Your task to perform on an android device: Go to Amazon Image 0: 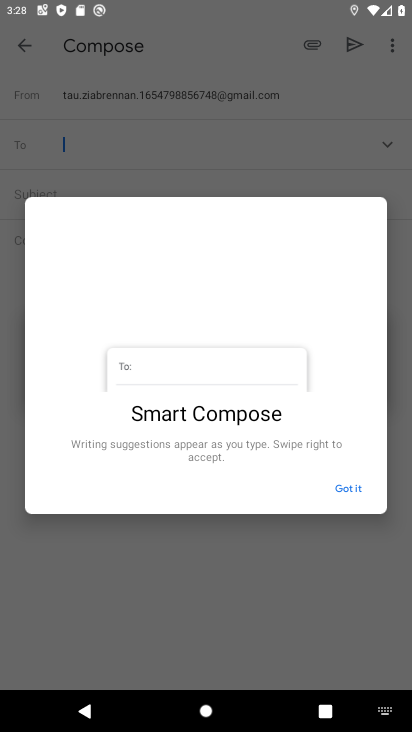
Step 0: press home button
Your task to perform on an android device: Go to Amazon Image 1: 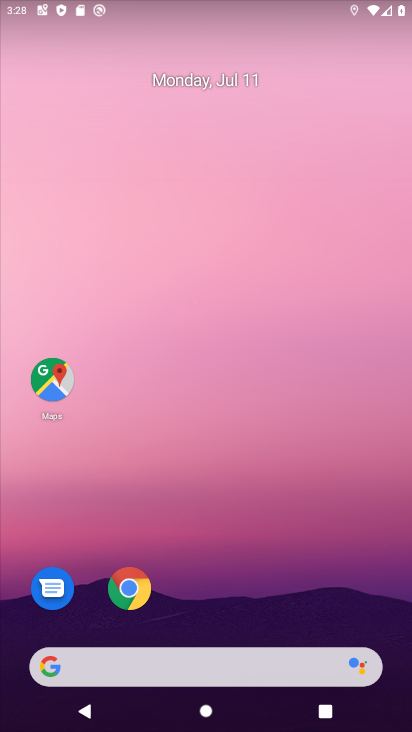
Step 1: click (136, 585)
Your task to perform on an android device: Go to Amazon Image 2: 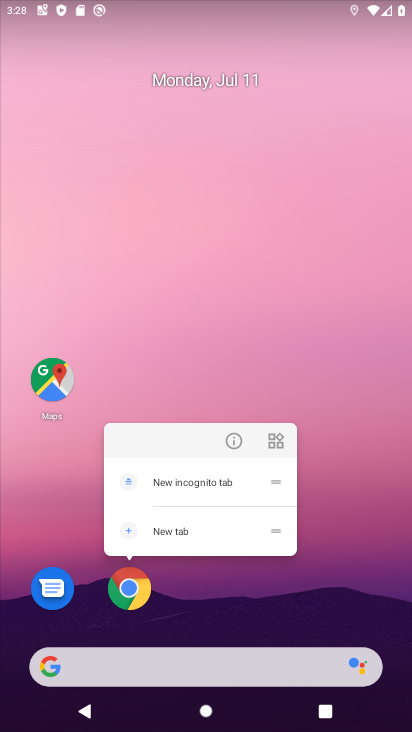
Step 2: click (135, 585)
Your task to perform on an android device: Go to Amazon Image 3: 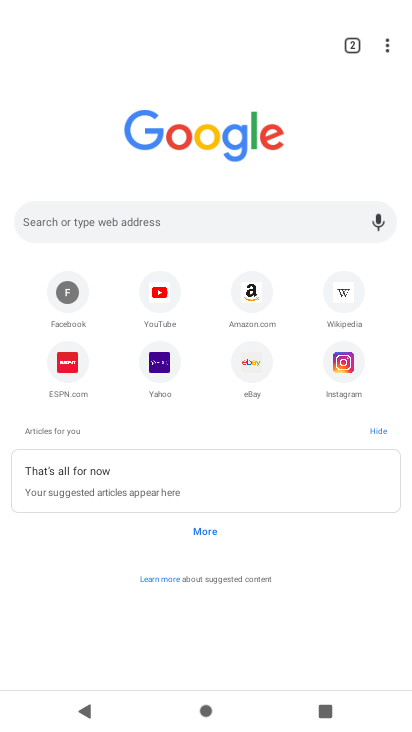
Step 3: click (258, 288)
Your task to perform on an android device: Go to Amazon Image 4: 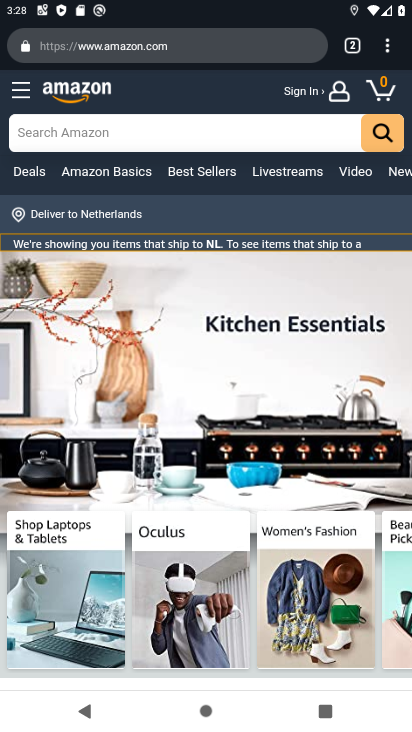
Step 4: task complete